Your task to perform on an android device: Go to network settings Image 0: 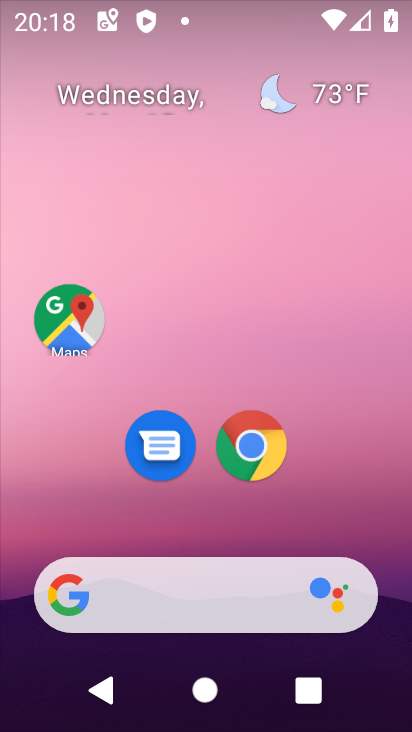
Step 0: drag from (304, 537) to (316, 214)
Your task to perform on an android device: Go to network settings Image 1: 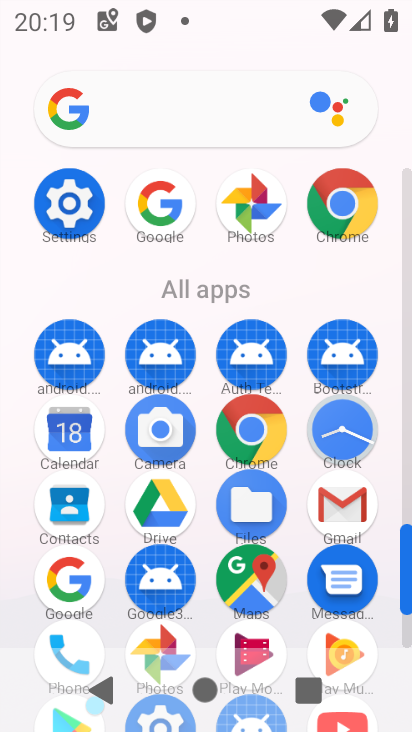
Step 1: click (76, 203)
Your task to perform on an android device: Go to network settings Image 2: 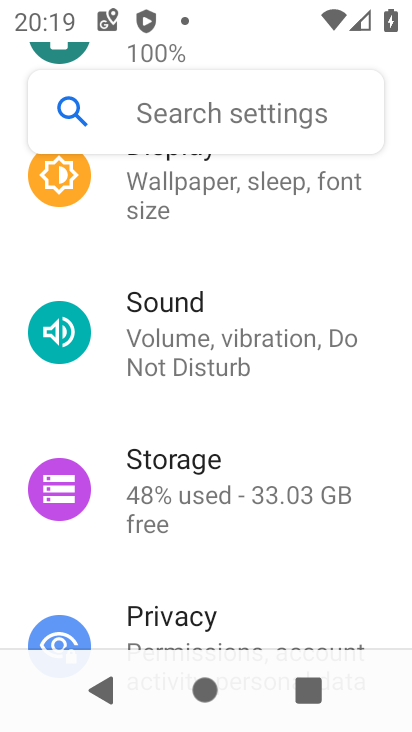
Step 2: drag from (174, 225) to (164, 603)
Your task to perform on an android device: Go to network settings Image 3: 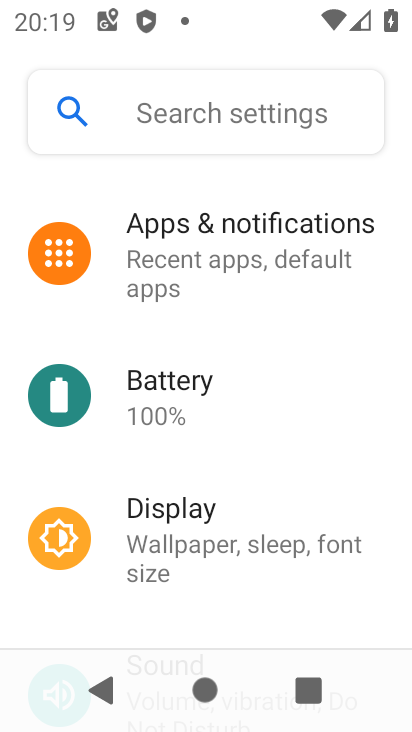
Step 3: drag from (201, 226) to (208, 603)
Your task to perform on an android device: Go to network settings Image 4: 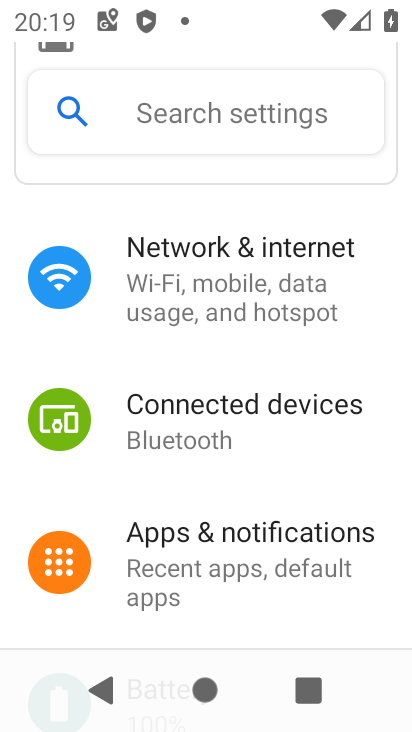
Step 4: drag from (227, 202) to (225, 350)
Your task to perform on an android device: Go to network settings Image 5: 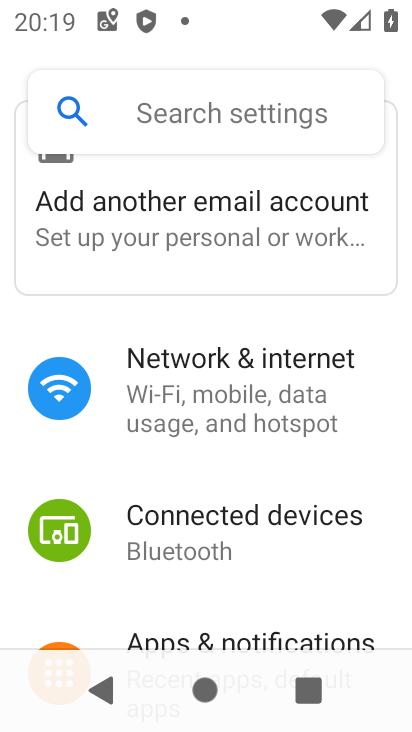
Step 5: click (207, 382)
Your task to perform on an android device: Go to network settings Image 6: 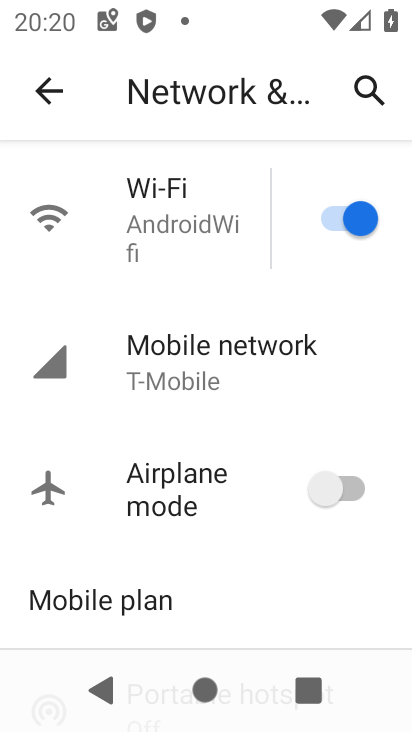
Step 6: task complete